Your task to perform on an android device: empty trash in google photos Image 0: 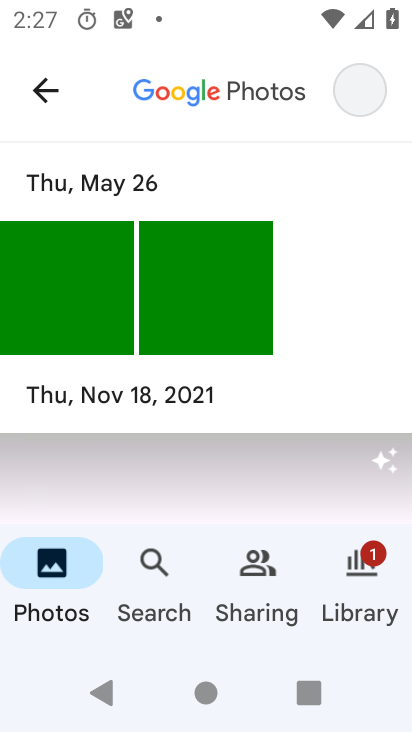
Step 0: drag from (384, 685) to (386, 497)
Your task to perform on an android device: empty trash in google photos Image 1: 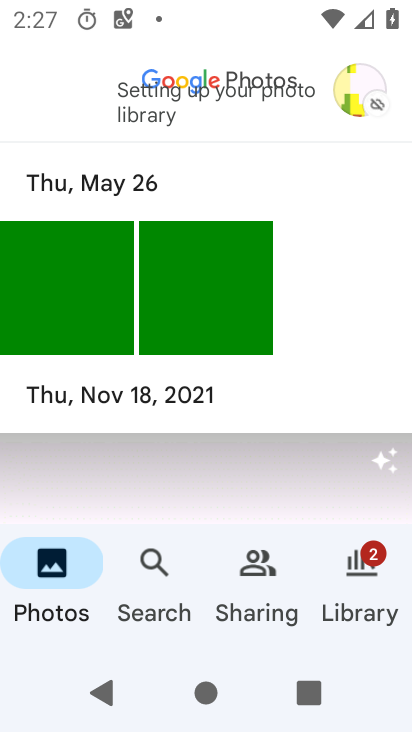
Step 1: press home button
Your task to perform on an android device: empty trash in google photos Image 2: 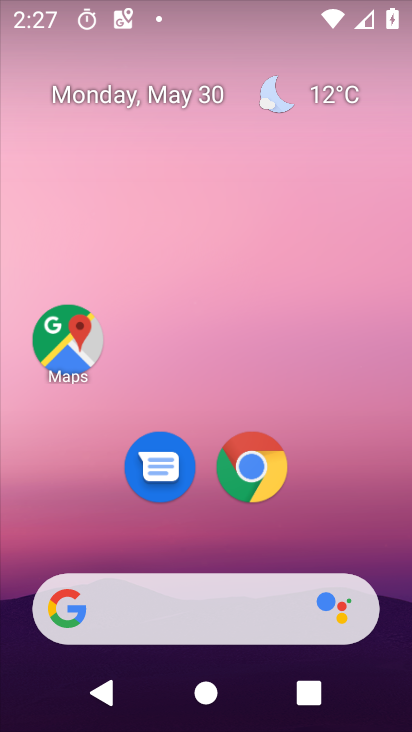
Step 2: drag from (384, 710) to (370, 225)
Your task to perform on an android device: empty trash in google photos Image 3: 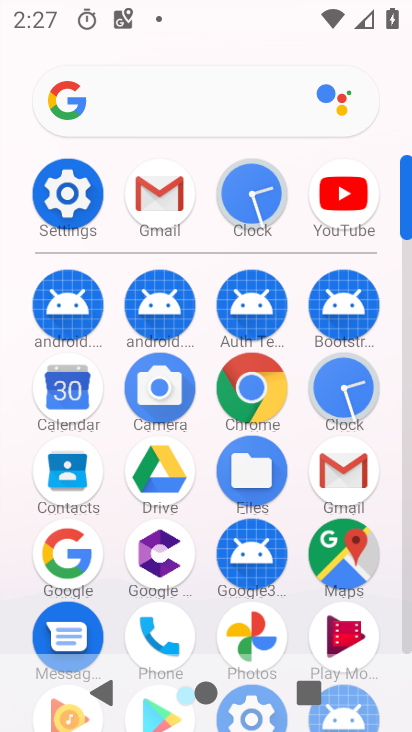
Step 3: click (242, 622)
Your task to perform on an android device: empty trash in google photos Image 4: 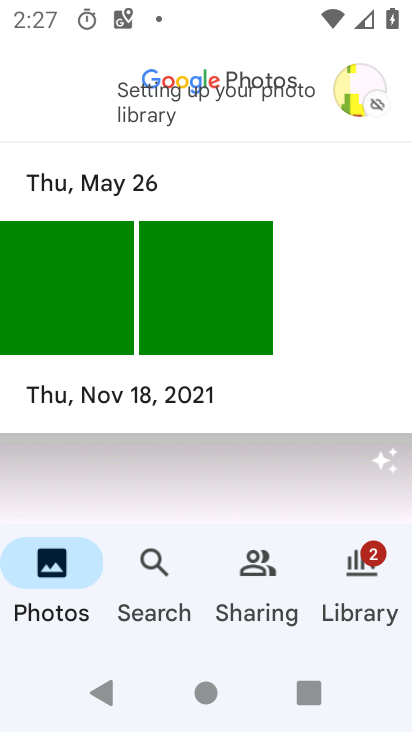
Step 4: task complete